Your task to perform on an android device: Open the calendar app, open the side menu, and click the "Day" option Image 0: 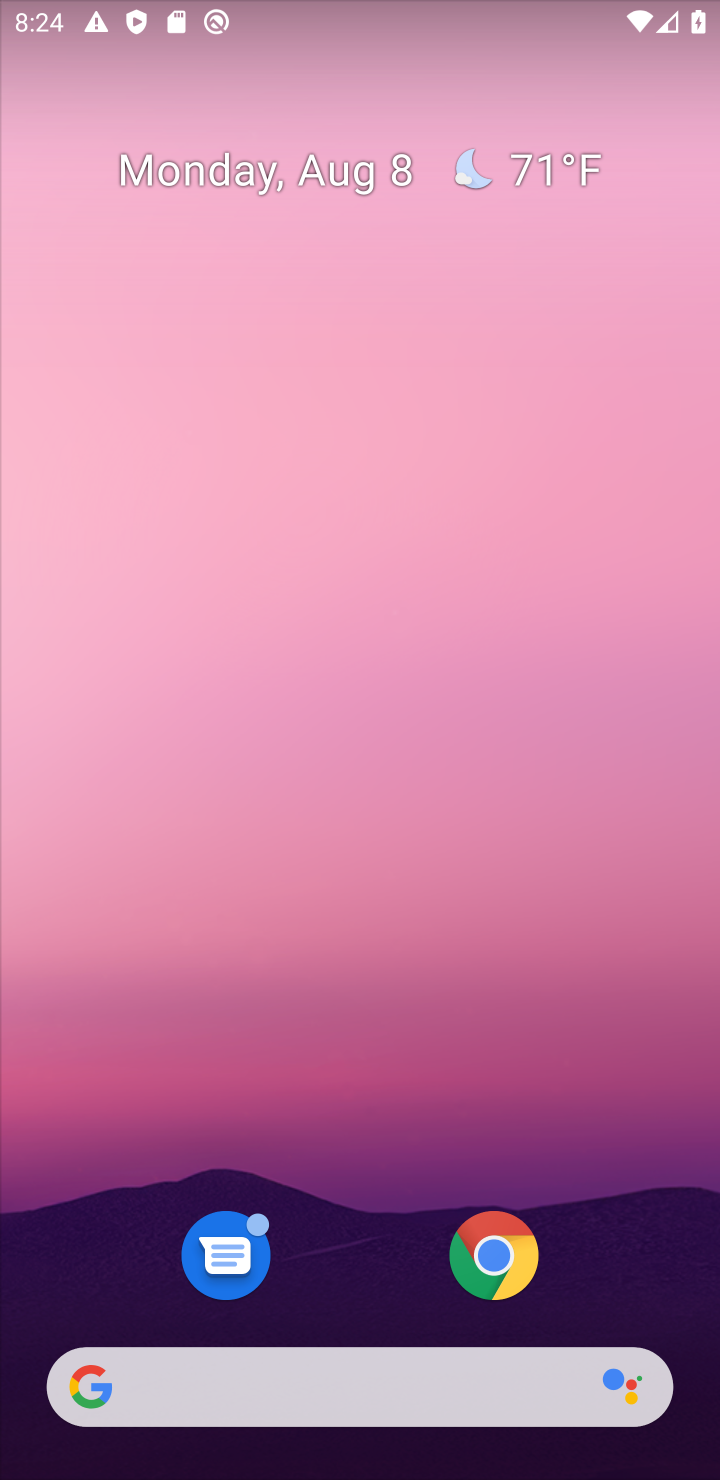
Step 0: press home button
Your task to perform on an android device: Open the calendar app, open the side menu, and click the "Day" option Image 1: 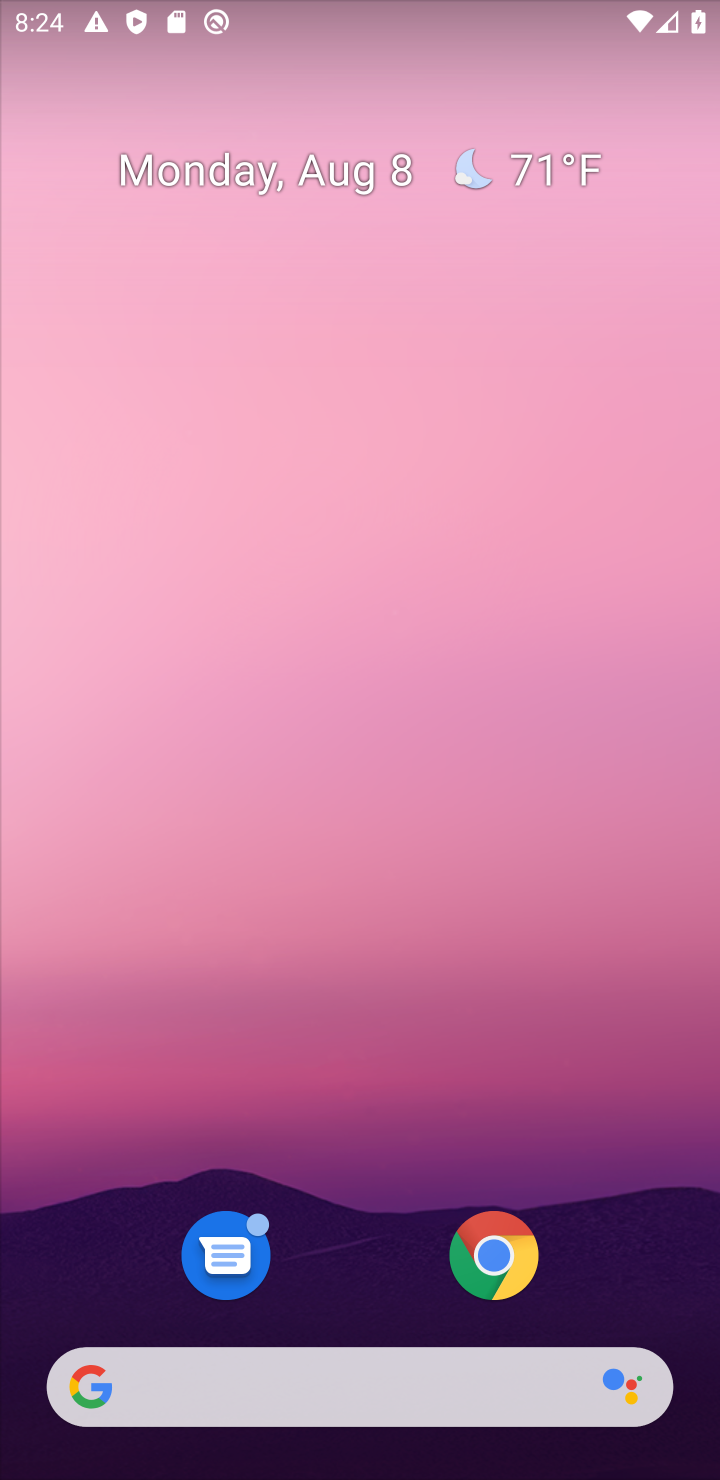
Step 1: drag from (379, 1082) to (332, 5)
Your task to perform on an android device: Open the calendar app, open the side menu, and click the "Day" option Image 2: 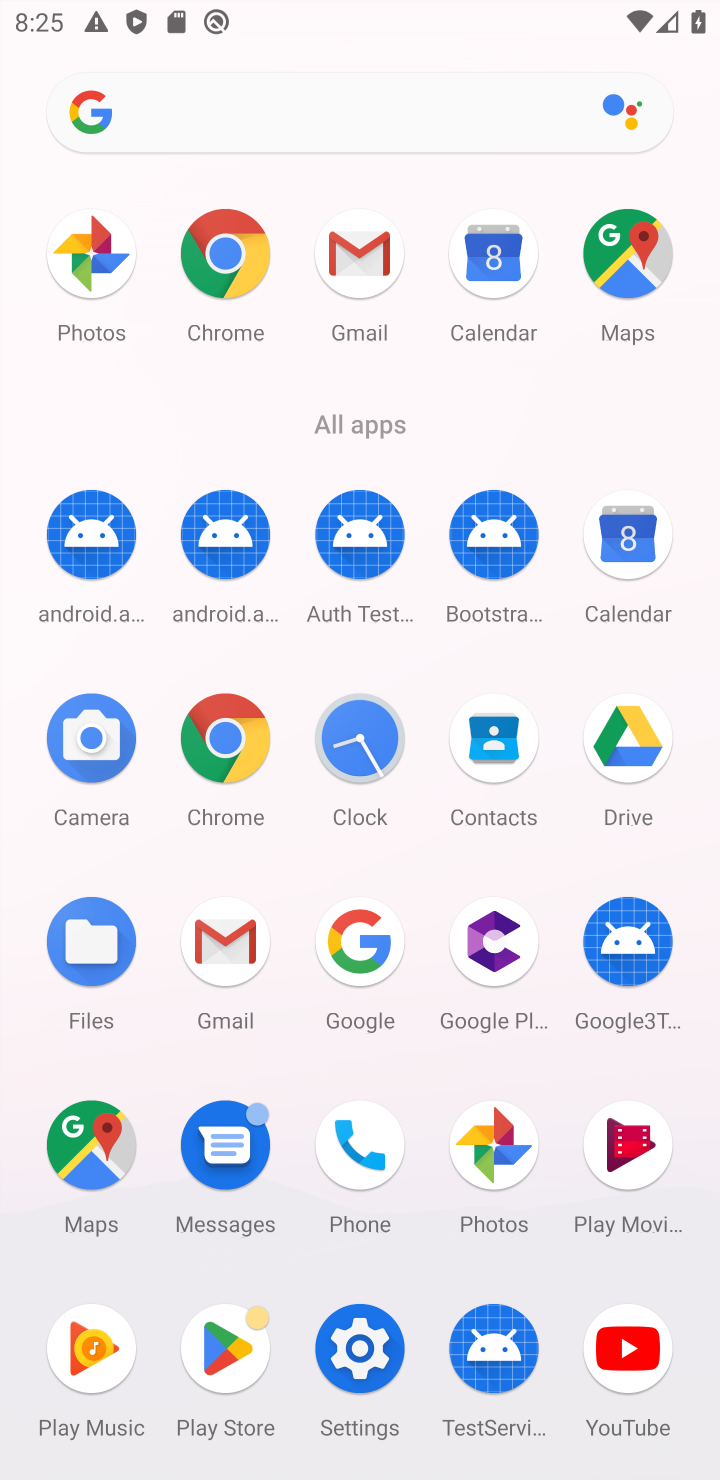
Step 2: click (629, 526)
Your task to perform on an android device: Open the calendar app, open the side menu, and click the "Day" option Image 3: 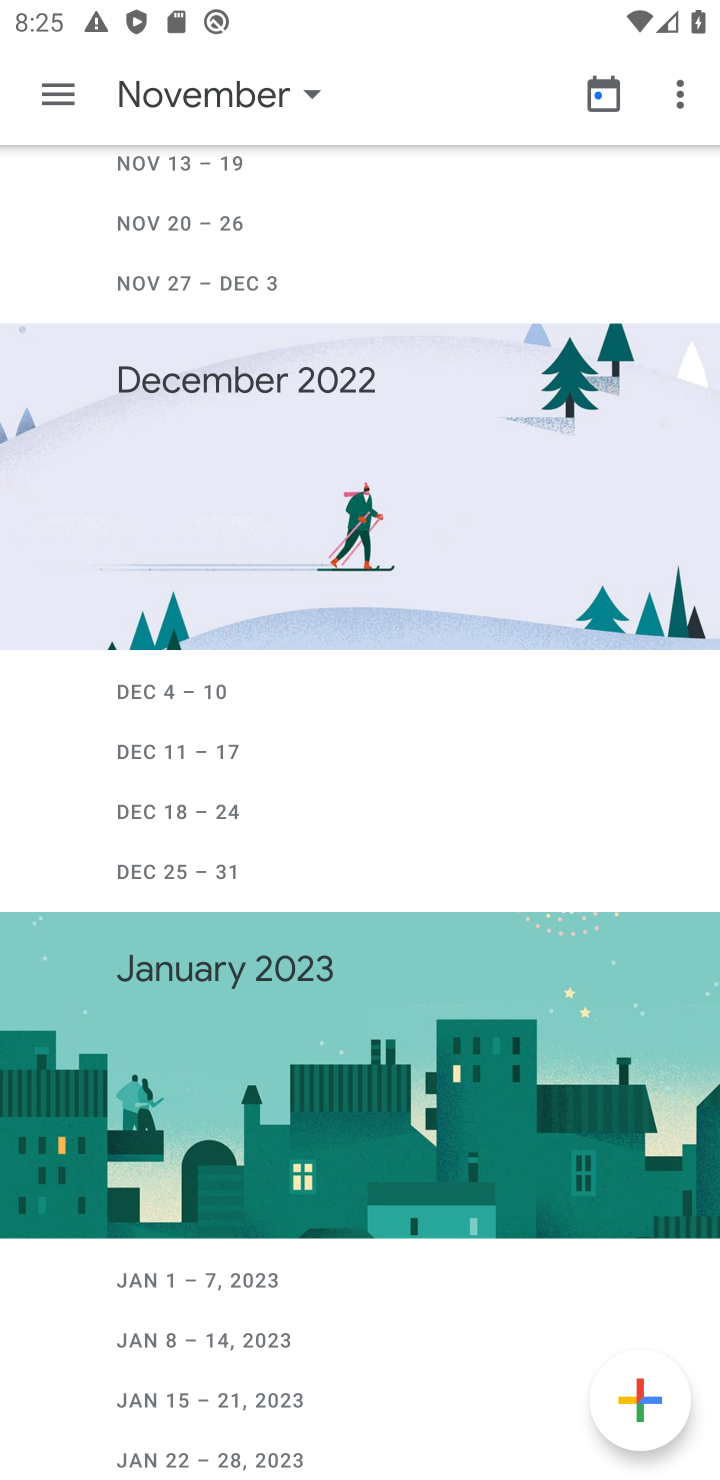
Step 3: click (57, 87)
Your task to perform on an android device: Open the calendar app, open the side menu, and click the "Day" option Image 4: 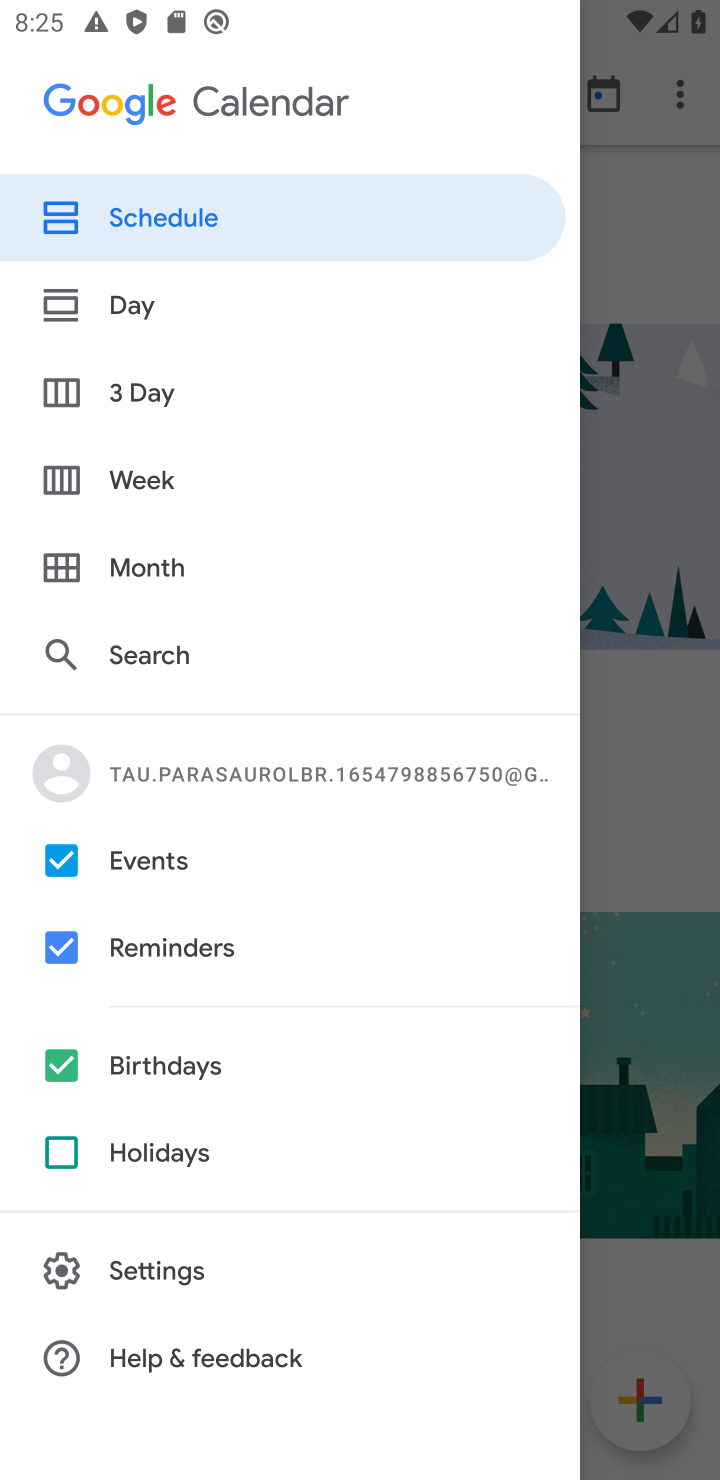
Step 4: click (99, 301)
Your task to perform on an android device: Open the calendar app, open the side menu, and click the "Day" option Image 5: 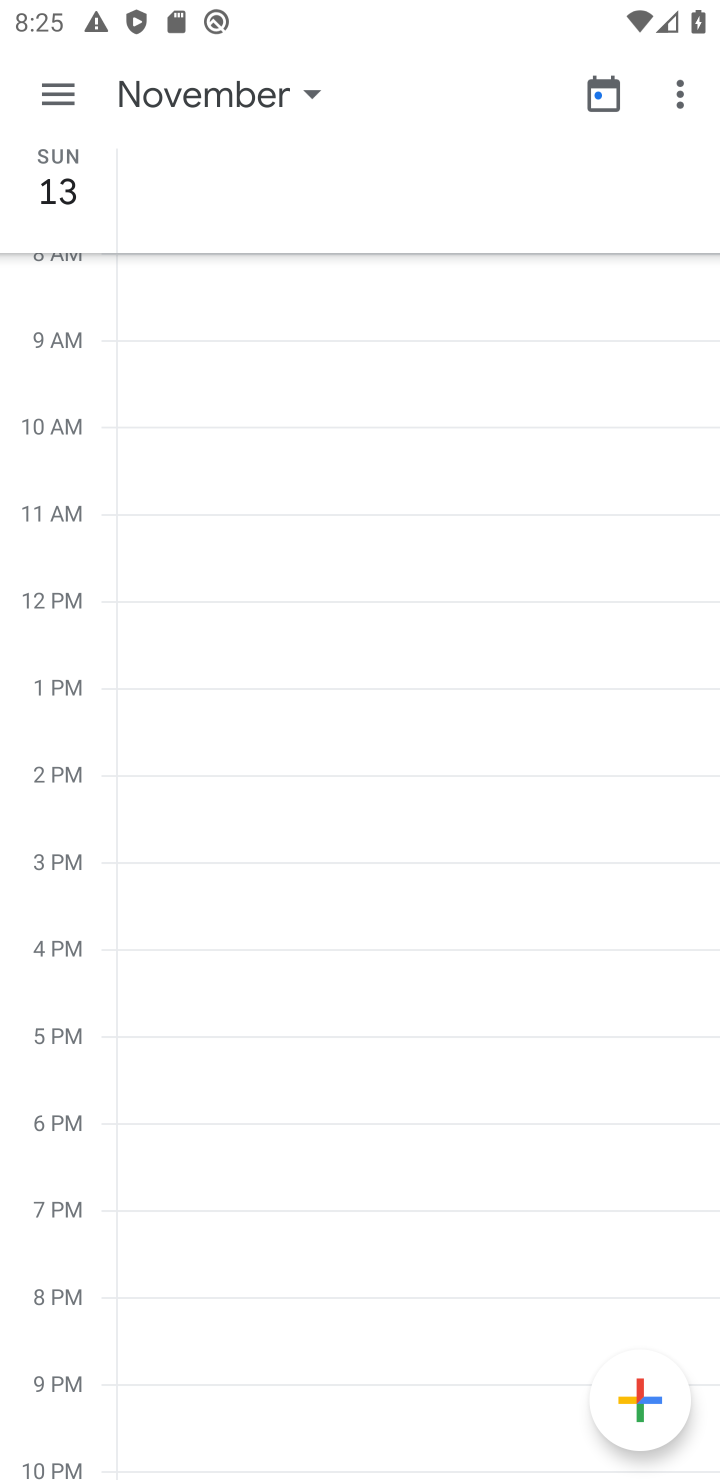
Step 5: task complete